Your task to perform on an android device: What's on my calendar today? Image 0: 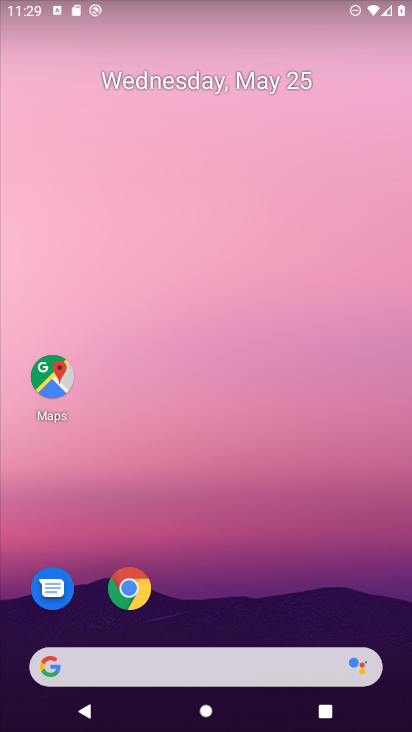
Step 0: drag from (72, 563) to (247, 161)
Your task to perform on an android device: What's on my calendar today? Image 1: 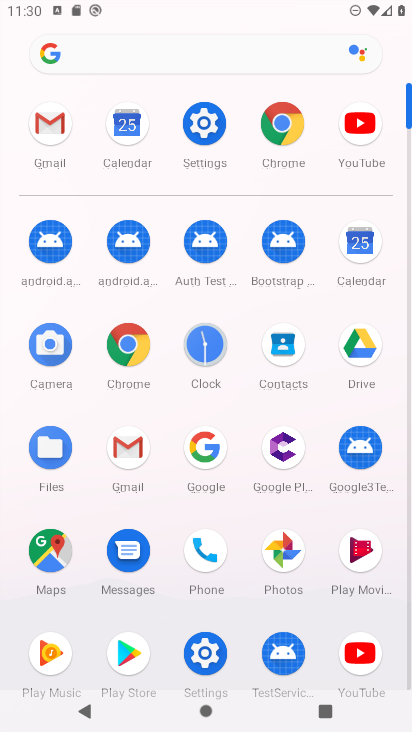
Step 1: click (369, 241)
Your task to perform on an android device: What's on my calendar today? Image 2: 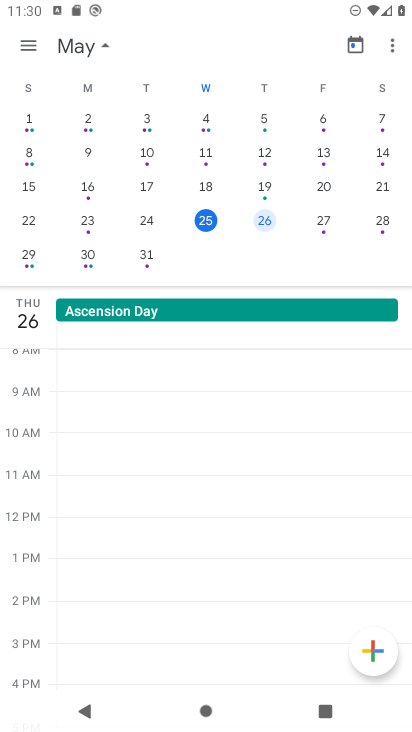
Step 2: click (264, 222)
Your task to perform on an android device: What's on my calendar today? Image 3: 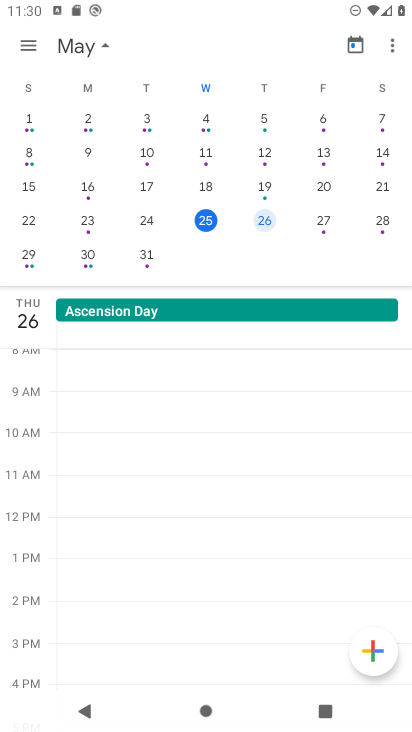
Step 3: click (268, 230)
Your task to perform on an android device: What's on my calendar today? Image 4: 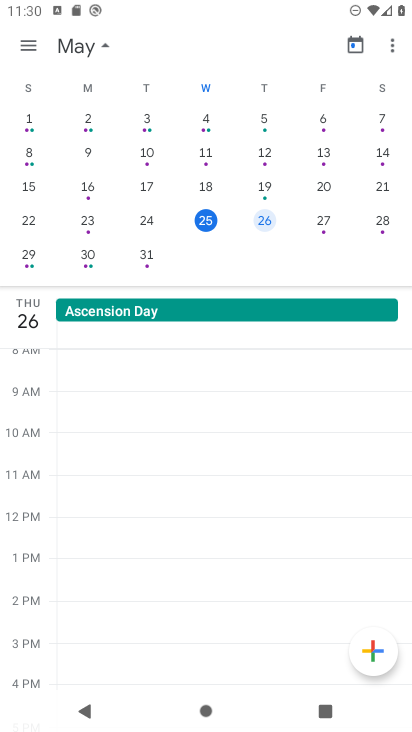
Step 4: task complete